Your task to perform on an android device: Open Google Chrome Image 0: 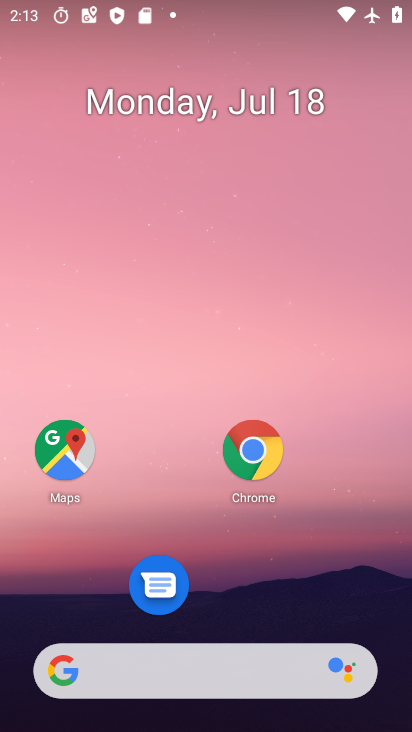
Step 0: click (250, 454)
Your task to perform on an android device: Open Google Chrome Image 1: 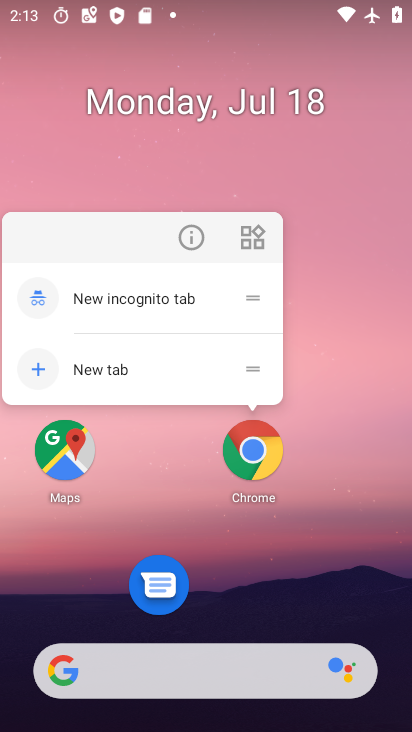
Step 1: click (253, 469)
Your task to perform on an android device: Open Google Chrome Image 2: 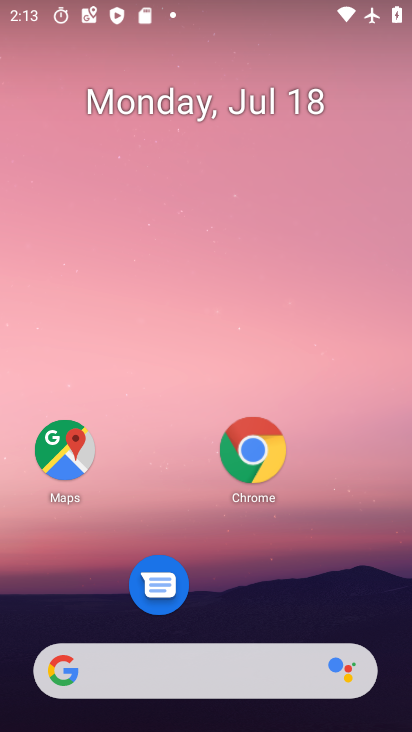
Step 2: click (253, 470)
Your task to perform on an android device: Open Google Chrome Image 3: 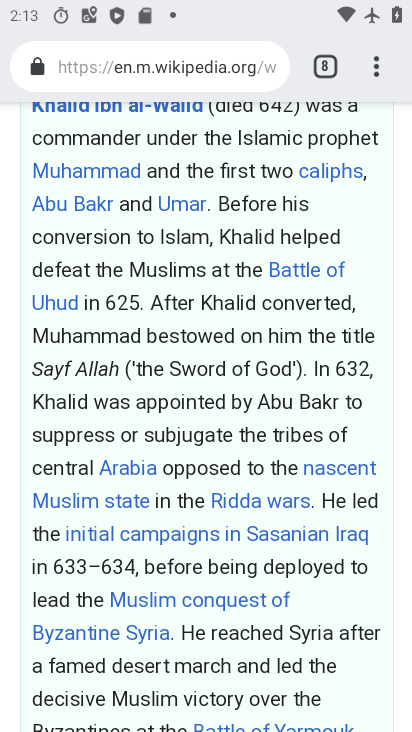
Step 3: task complete